Your task to perform on an android device: Open location settings Image 0: 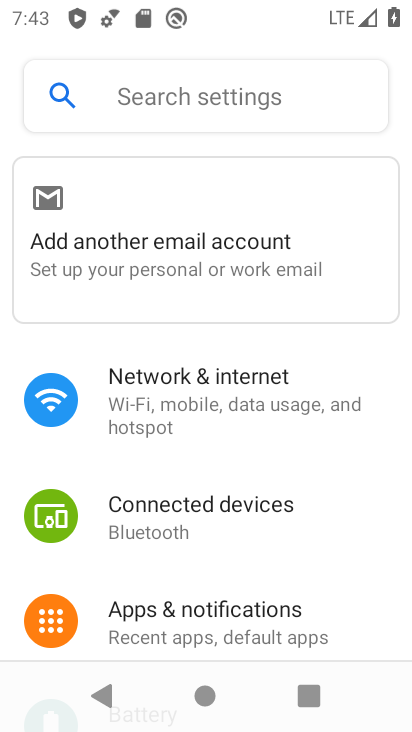
Step 0: drag from (265, 595) to (275, 240)
Your task to perform on an android device: Open location settings Image 1: 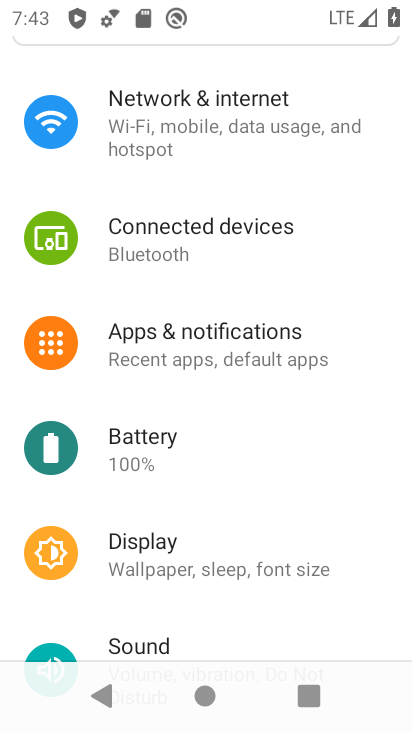
Step 1: drag from (246, 596) to (271, 280)
Your task to perform on an android device: Open location settings Image 2: 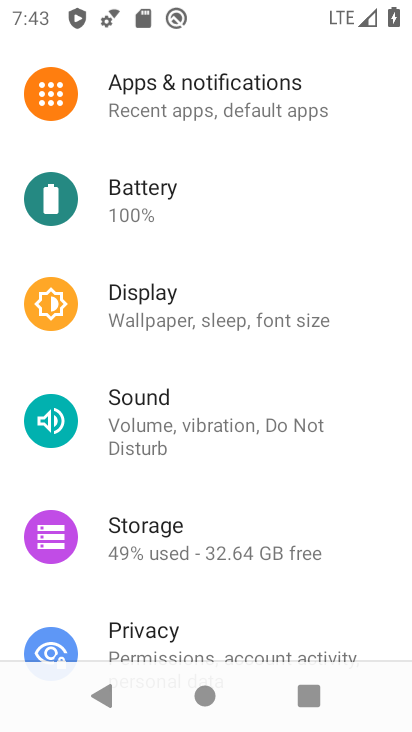
Step 2: drag from (253, 588) to (276, 278)
Your task to perform on an android device: Open location settings Image 3: 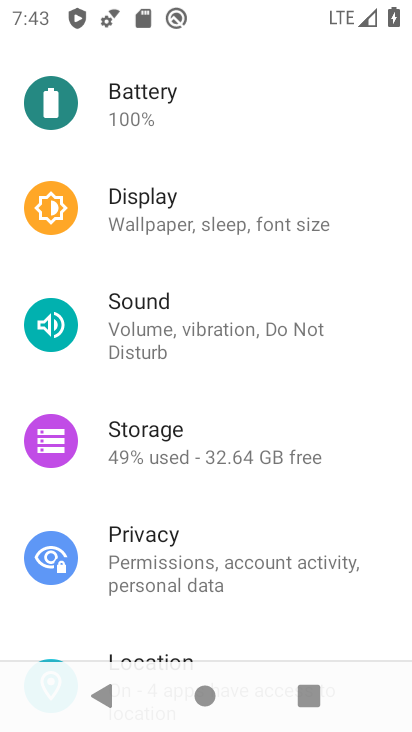
Step 3: drag from (266, 390) to (274, 241)
Your task to perform on an android device: Open location settings Image 4: 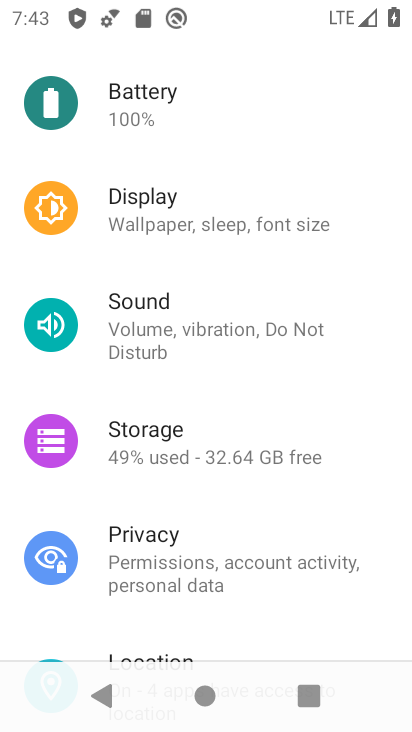
Step 4: drag from (262, 569) to (285, 274)
Your task to perform on an android device: Open location settings Image 5: 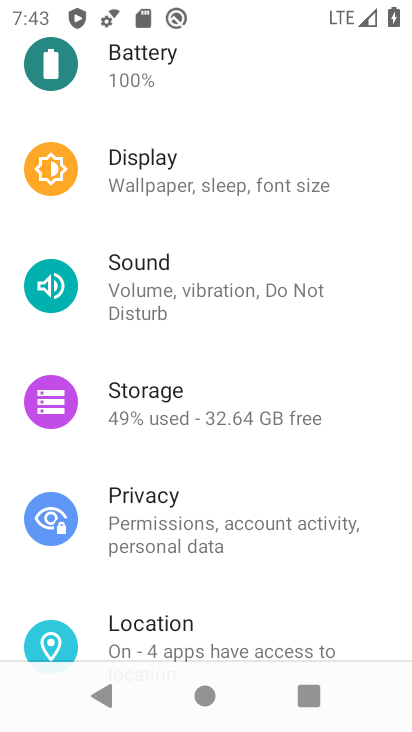
Step 5: click (117, 633)
Your task to perform on an android device: Open location settings Image 6: 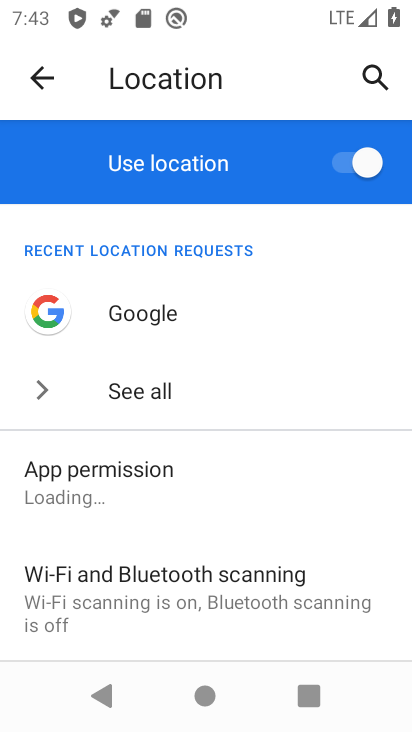
Step 6: drag from (173, 594) to (140, 255)
Your task to perform on an android device: Open location settings Image 7: 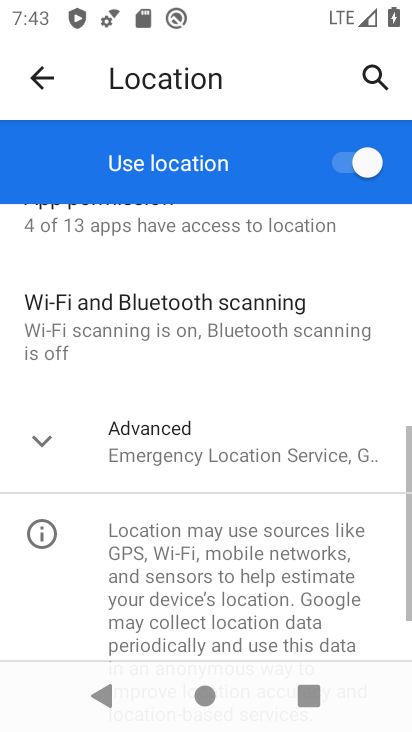
Step 7: drag from (234, 605) to (232, 355)
Your task to perform on an android device: Open location settings Image 8: 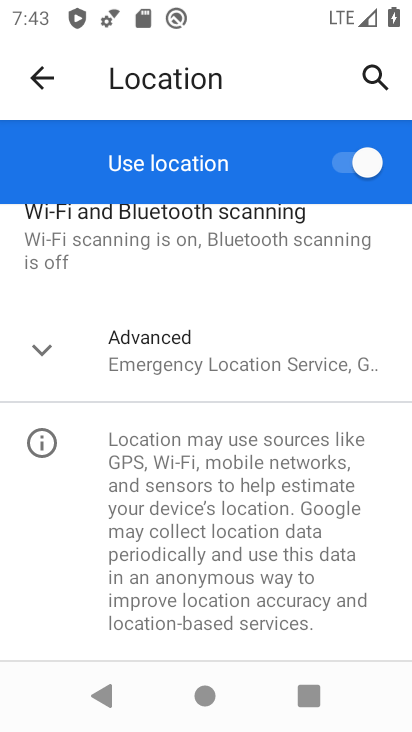
Step 8: click (43, 353)
Your task to perform on an android device: Open location settings Image 9: 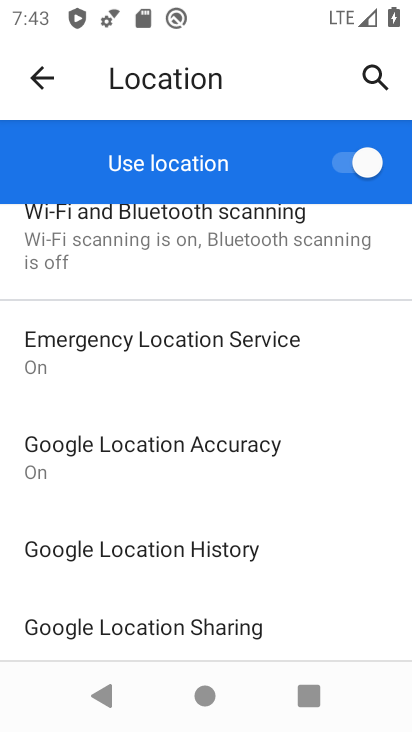
Step 9: task complete